Your task to perform on an android device: Open maps Image 0: 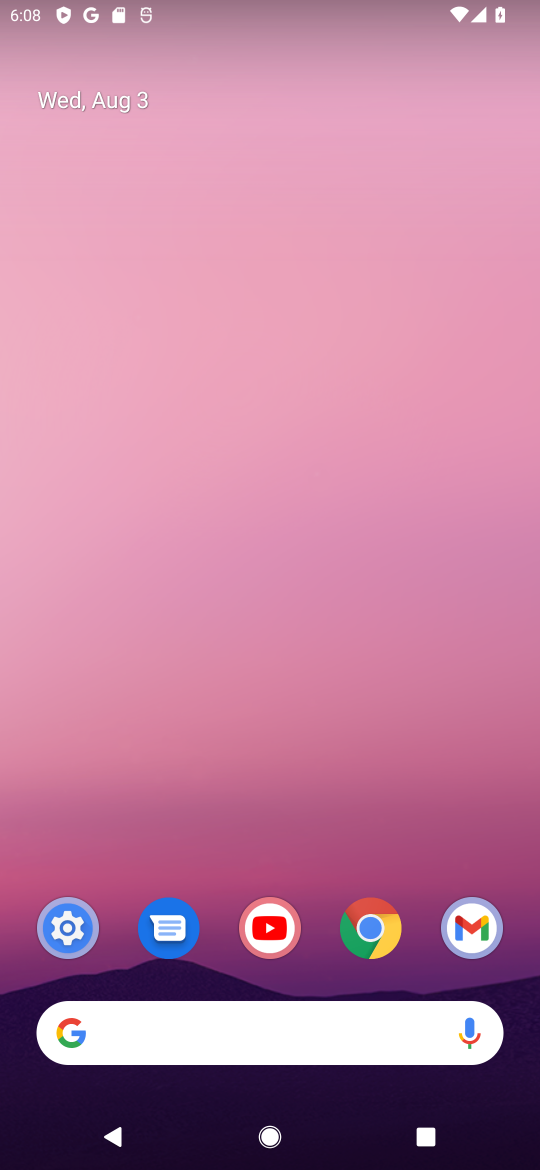
Step 0: press home button
Your task to perform on an android device: Open maps Image 1: 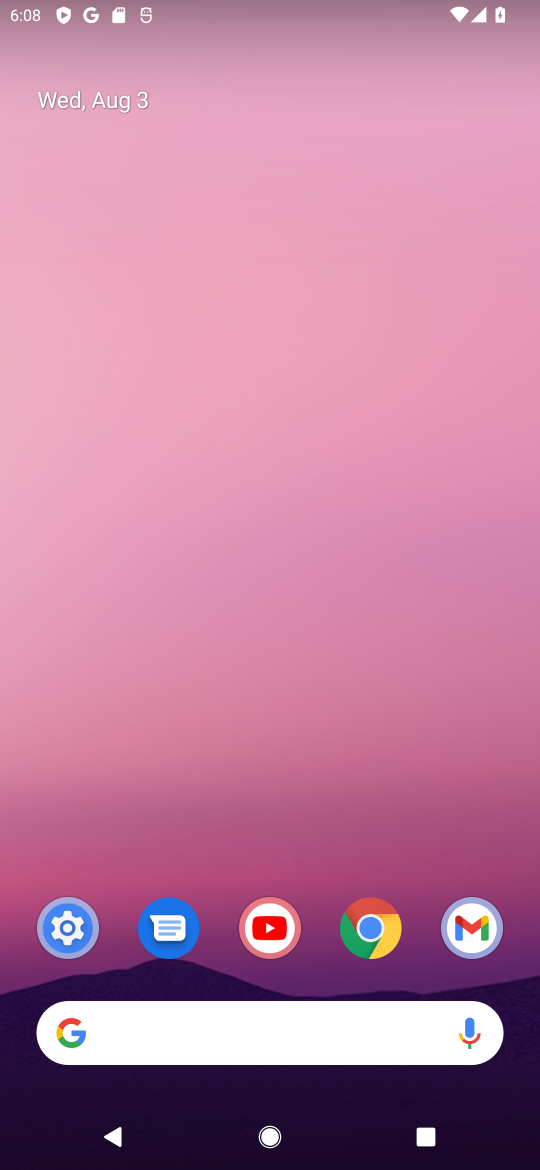
Step 1: drag from (313, 852) to (441, 171)
Your task to perform on an android device: Open maps Image 2: 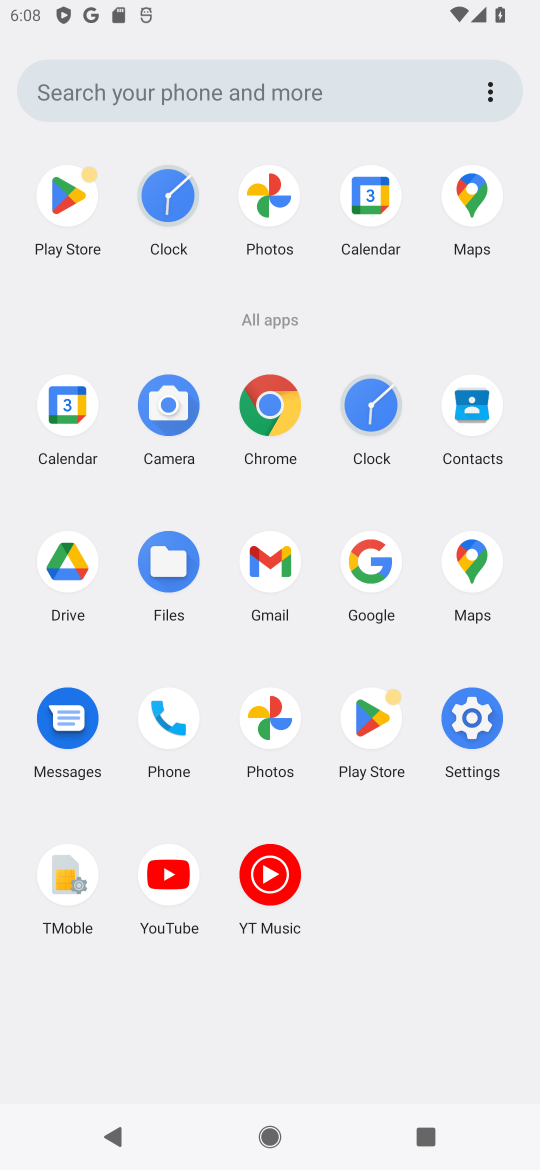
Step 2: click (469, 563)
Your task to perform on an android device: Open maps Image 3: 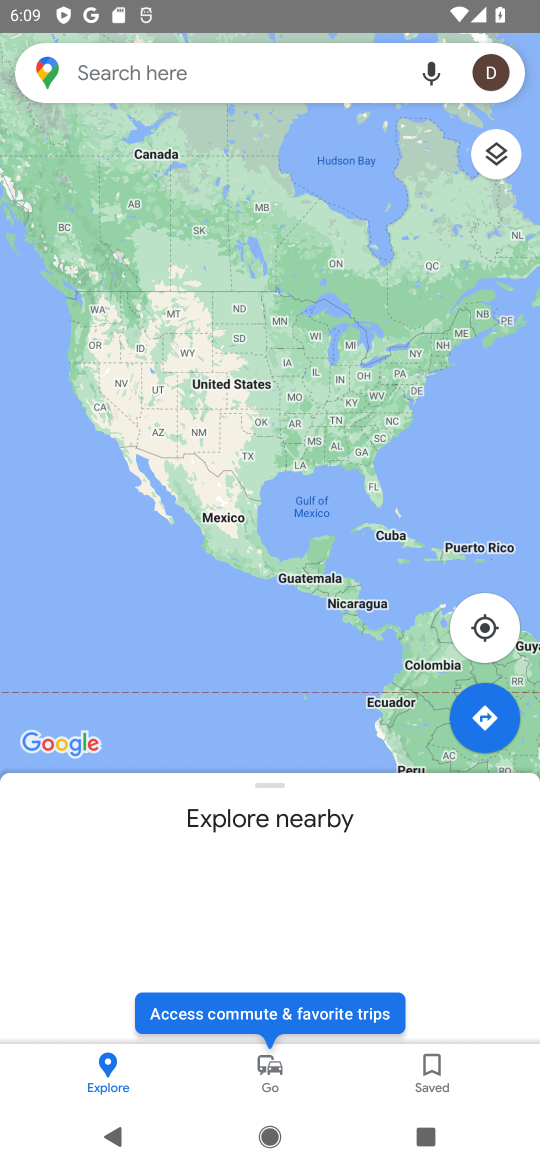
Step 3: task complete